Your task to perform on an android device: Go to calendar. Show me events next week Image 0: 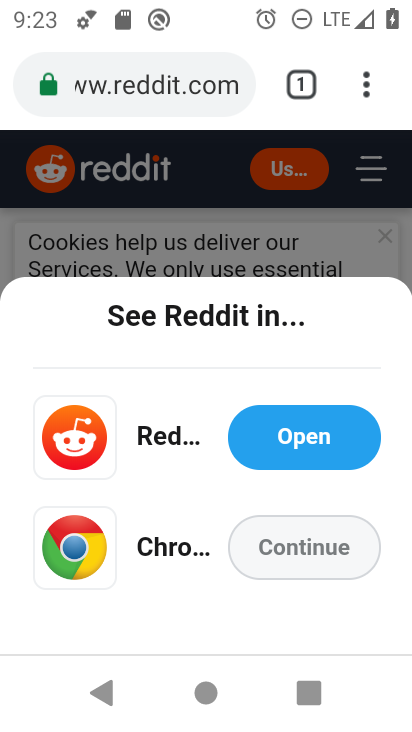
Step 0: press home button
Your task to perform on an android device: Go to calendar. Show me events next week Image 1: 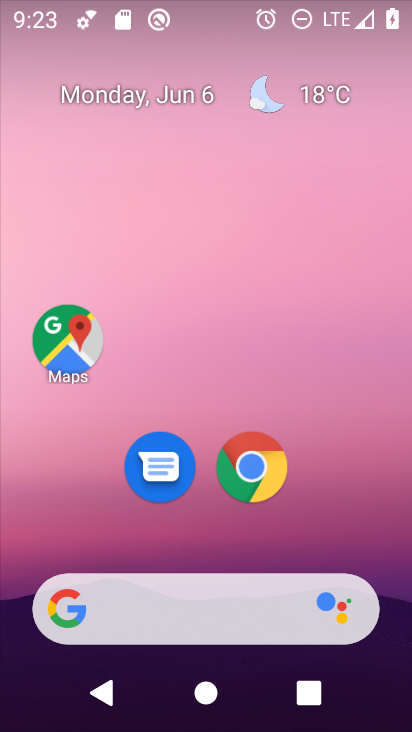
Step 1: drag from (354, 509) to (403, 112)
Your task to perform on an android device: Go to calendar. Show me events next week Image 2: 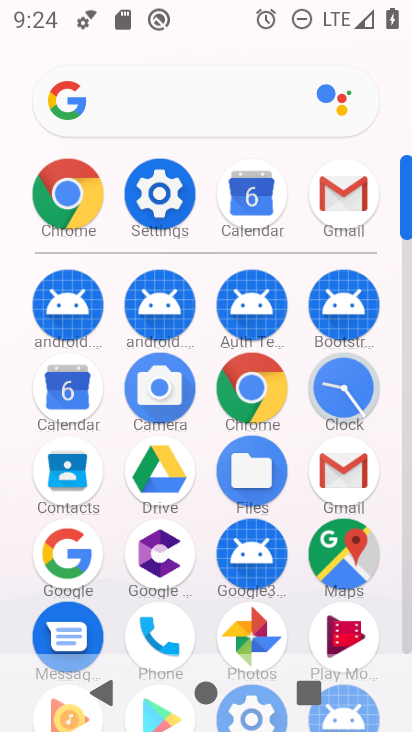
Step 2: click (76, 415)
Your task to perform on an android device: Go to calendar. Show me events next week Image 3: 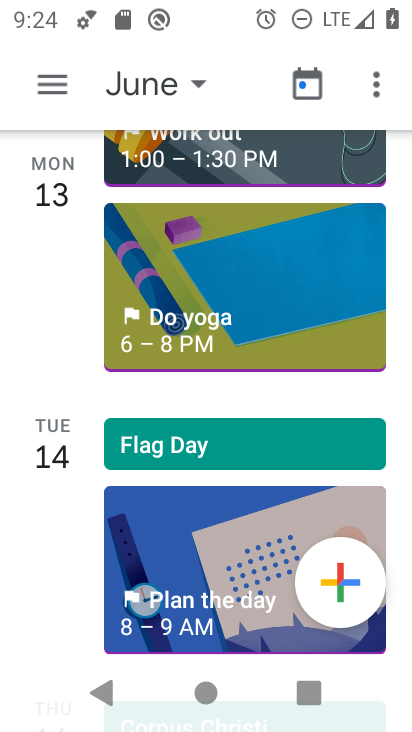
Step 3: task complete